Your task to perform on an android device: Open Chrome and go to the settings page Image 0: 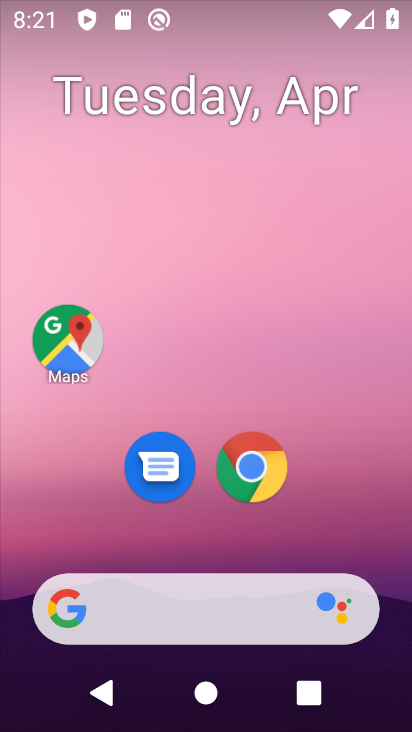
Step 0: click (246, 477)
Your task to perform on an android device: Open Chrome and go to the settings page Image 1: 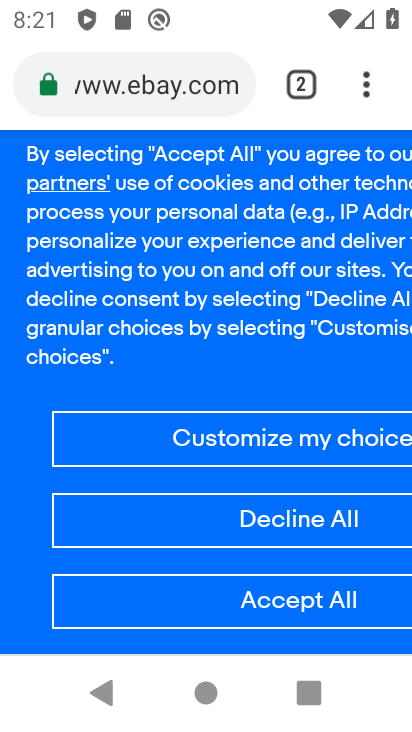
Step 1: click (369, 84)
Your task to perform on an android device: Open Chrome and go to the settings page Image 2: 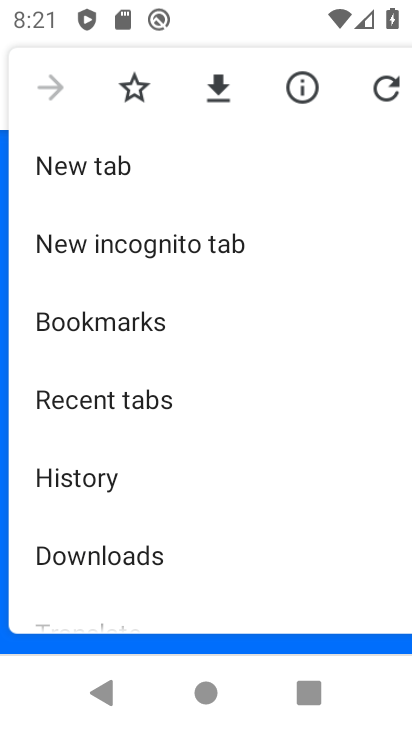
Step 2: drag from (308, 534) to (307, 176)
Your task to perform on an android device: Open Chrome and go to the settings page Image 3: 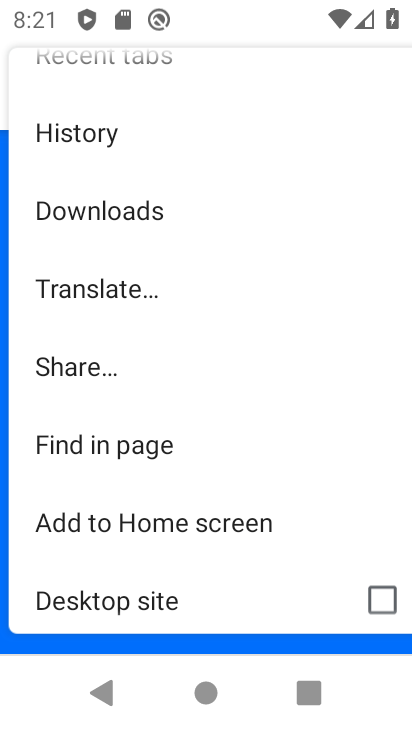
Step 3: drag from (303, 550) to (269, 164)
Your task to perform on an android device: Open Chrome and go to the settings page Image 4: 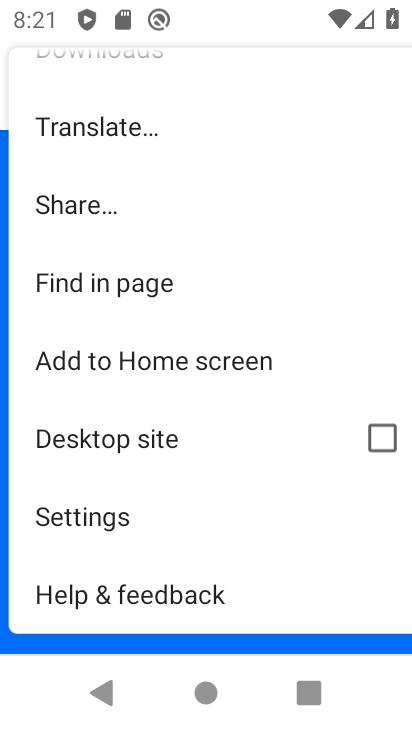
Step 4: click (83, 526)
Your task to perform on an android device: Open Chrome and go to the settings page Image 5: 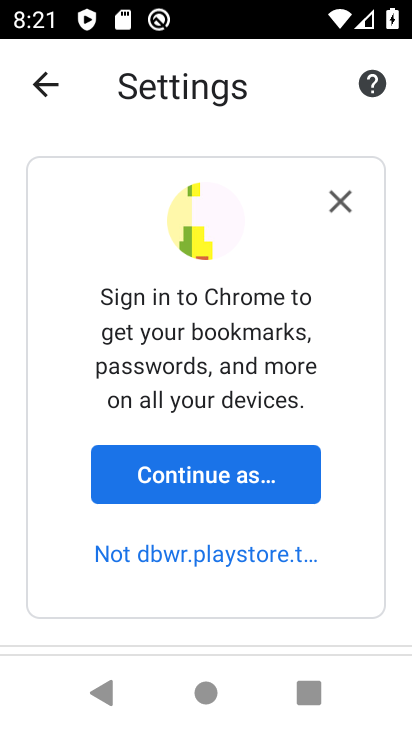
Step 5: task complete